Your task to perform on an android device: set the timer Image 0: 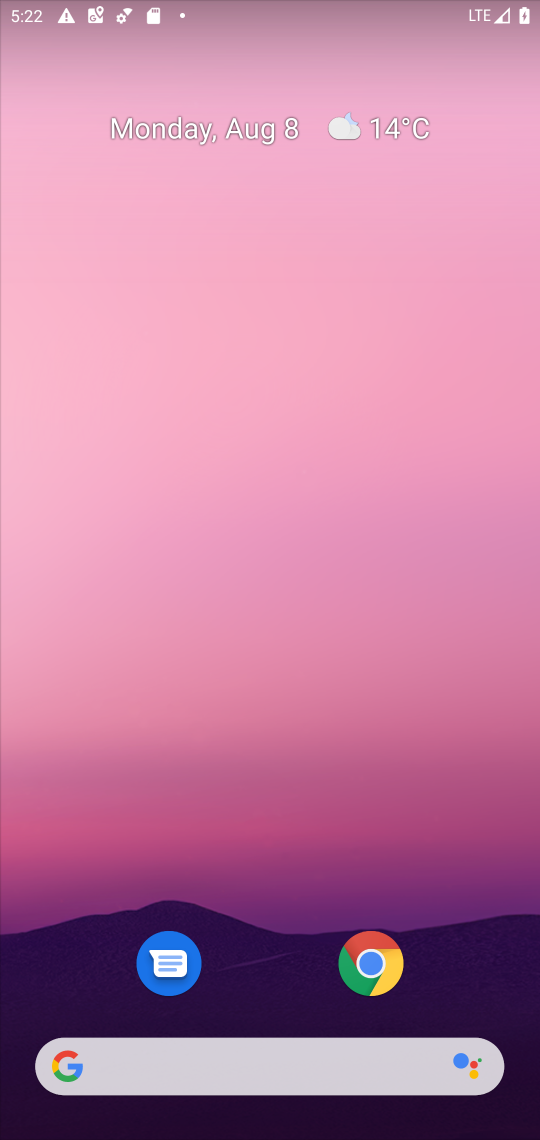
Step 0: drag from (270, 941) to (270, 353)
Your task to perform on an android device: set the timer Image 1: 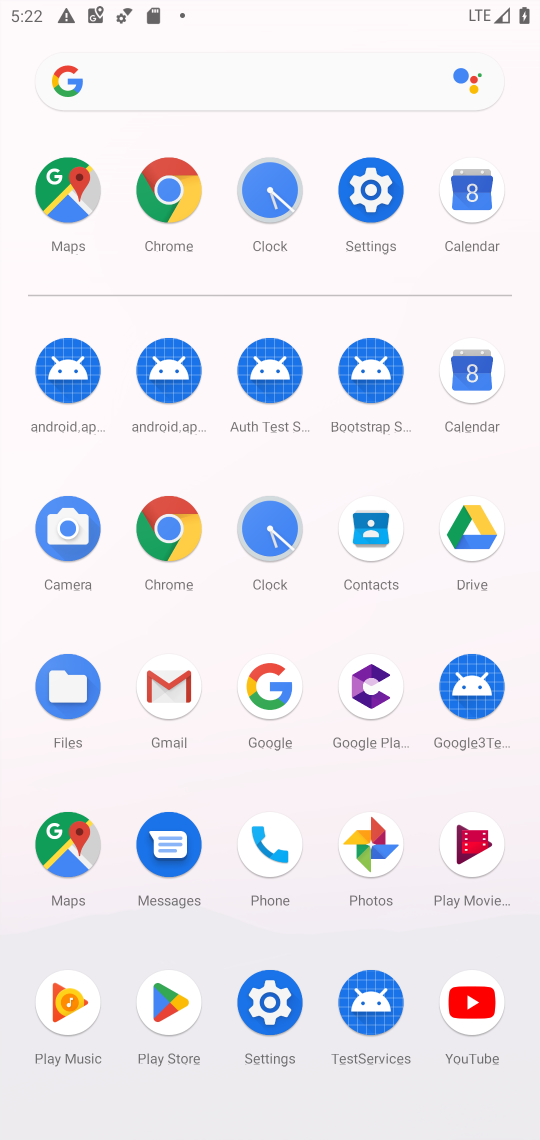
Step 1: click (264, 541)
Your task to perform on an android device: set the timer Image 2: 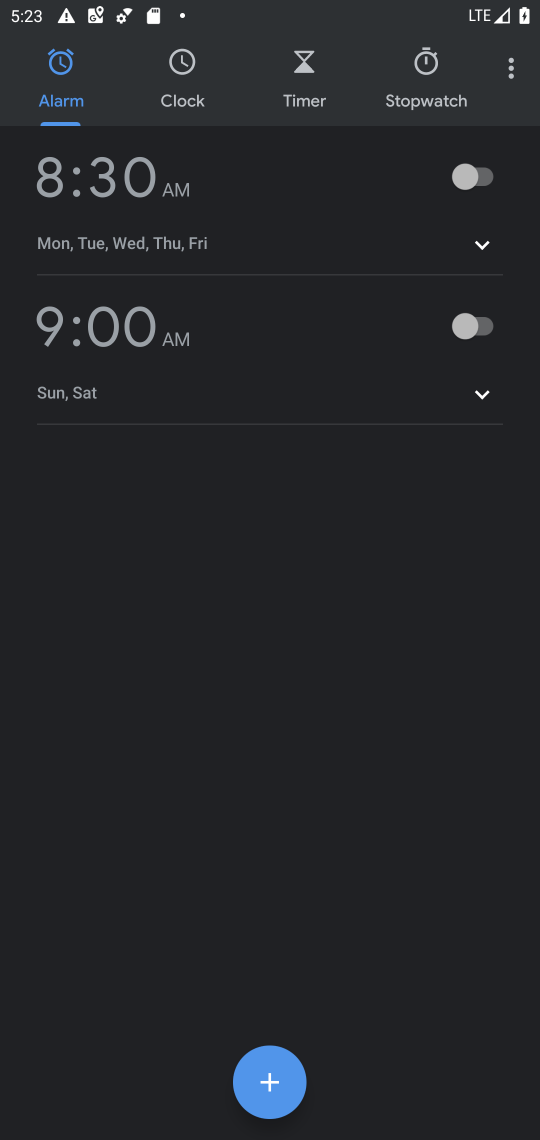
Step 2: click (298, 71)
Your task to perform on an android device: set the timer Image 3: 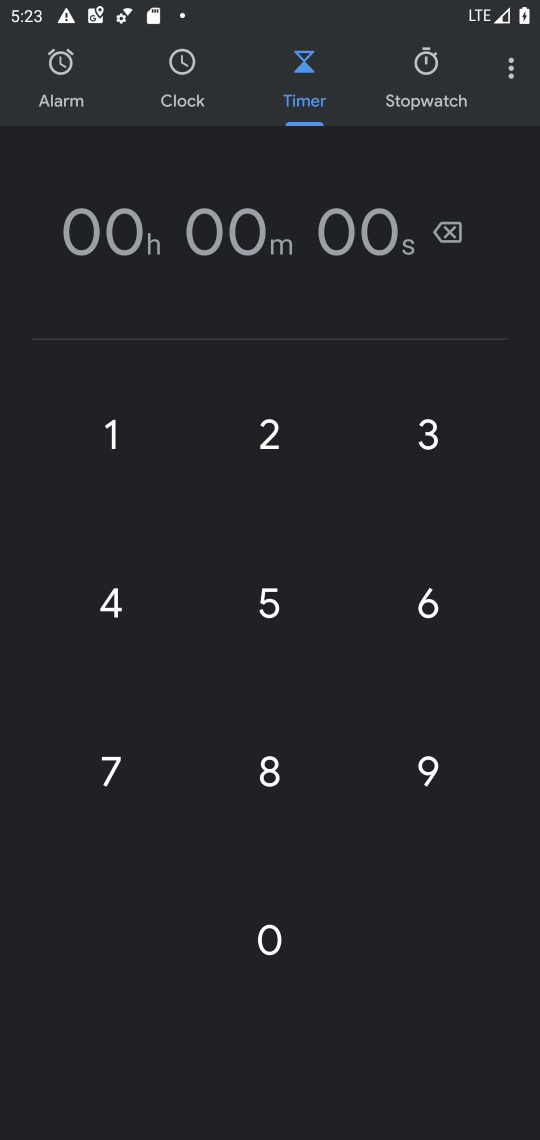
Step 3: click (281, 428)
Your task to perform on an android device: set the timer Image 4: 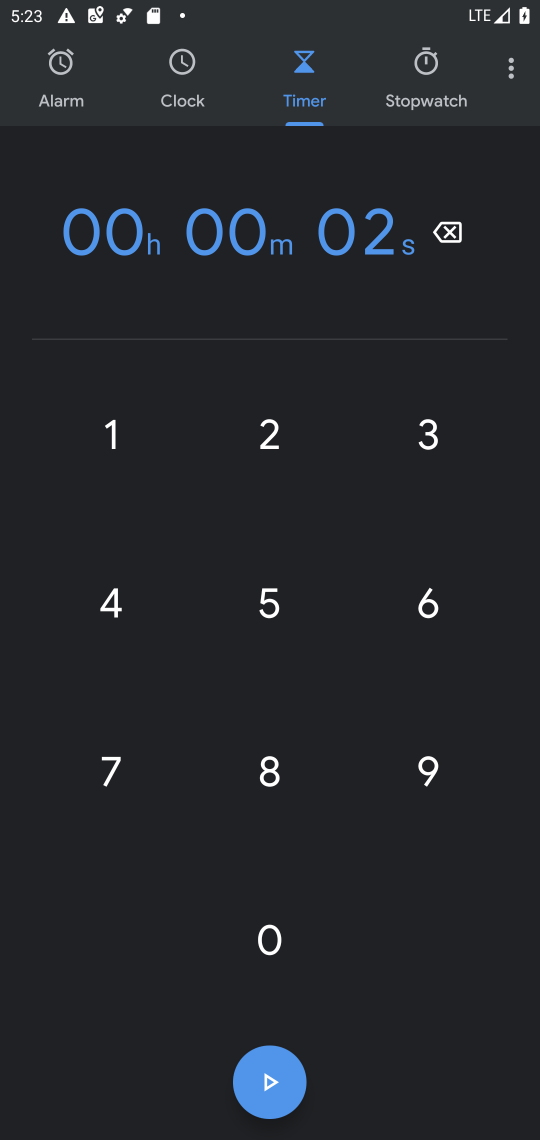
Step 4: click (281, 428)
Your task to perform on an android device: set the timer Image 5: 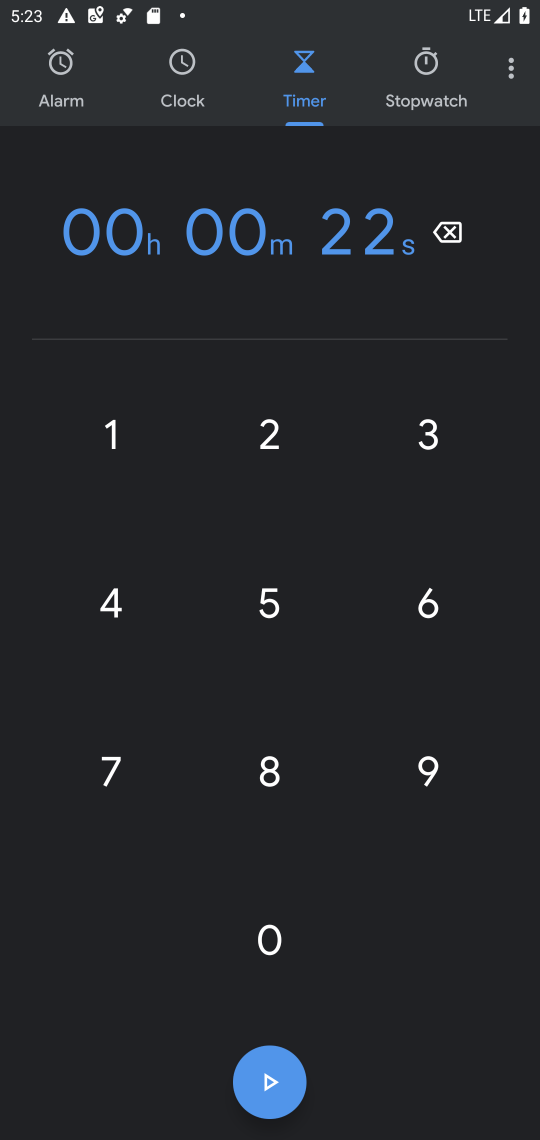
Step 5: click (281, 428)
Your task to perform on an android device: set the timer Image 6: 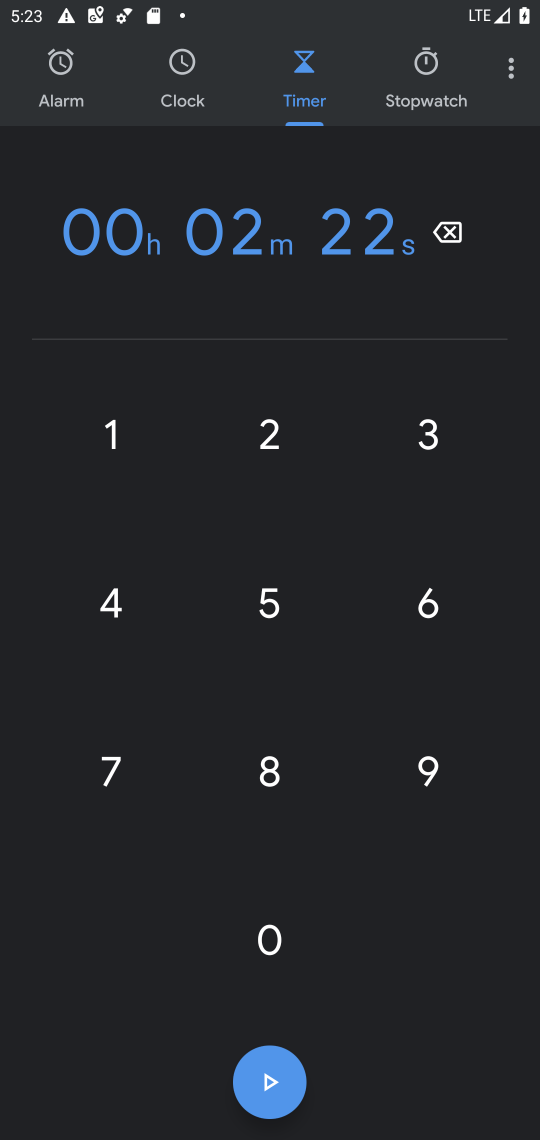
Step 6: click (281, 428)
Your task to perform on an android device: set the timer Image 7: 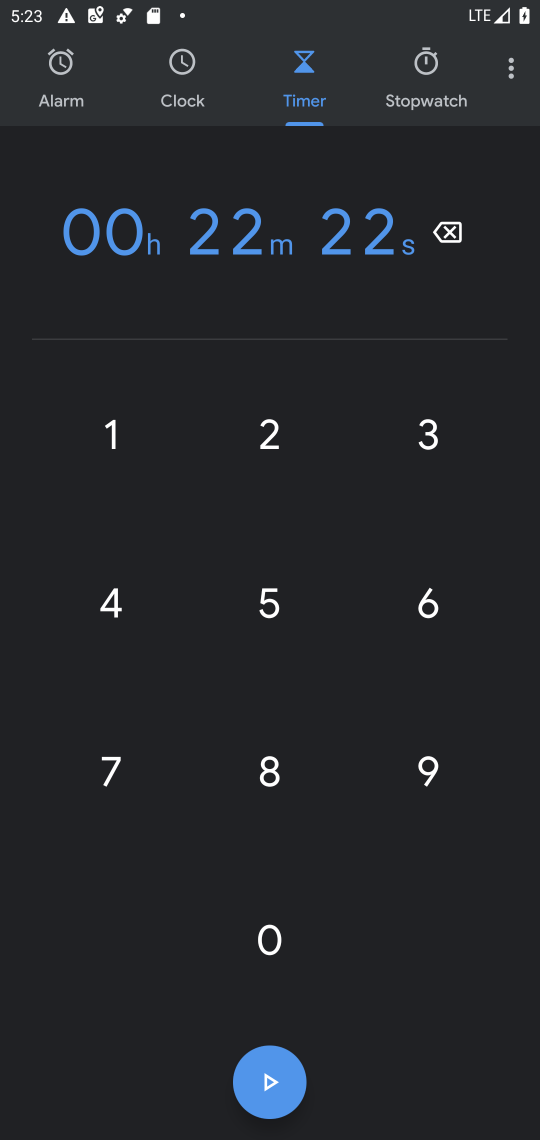
Step 7: click (281, 428)
Your task to perform on an android device: set the timer Image 8: 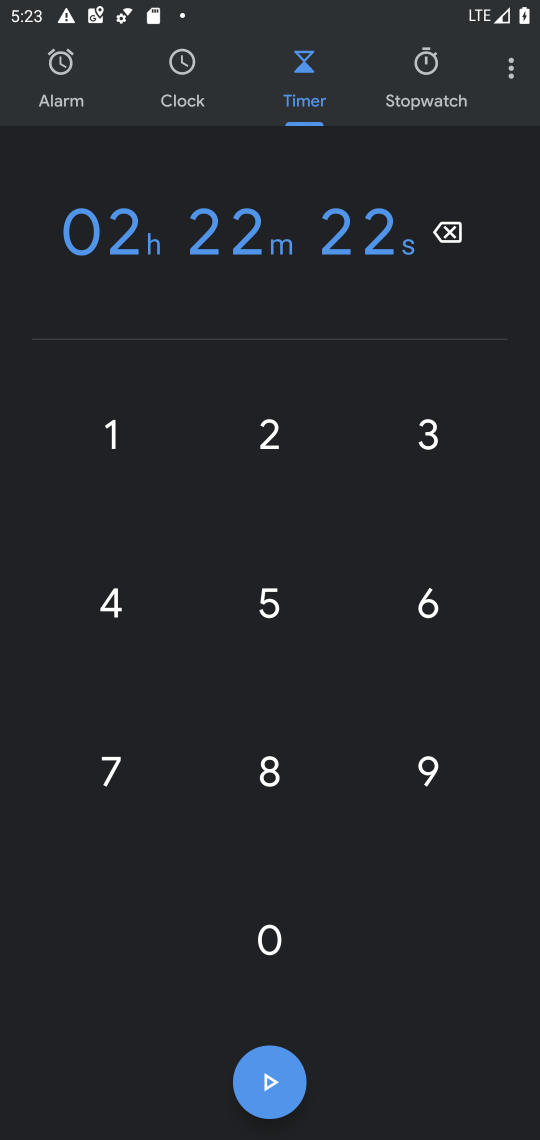
Step 8: click (281, 428)
Your task to perform on an android device: set the timer Image 9: 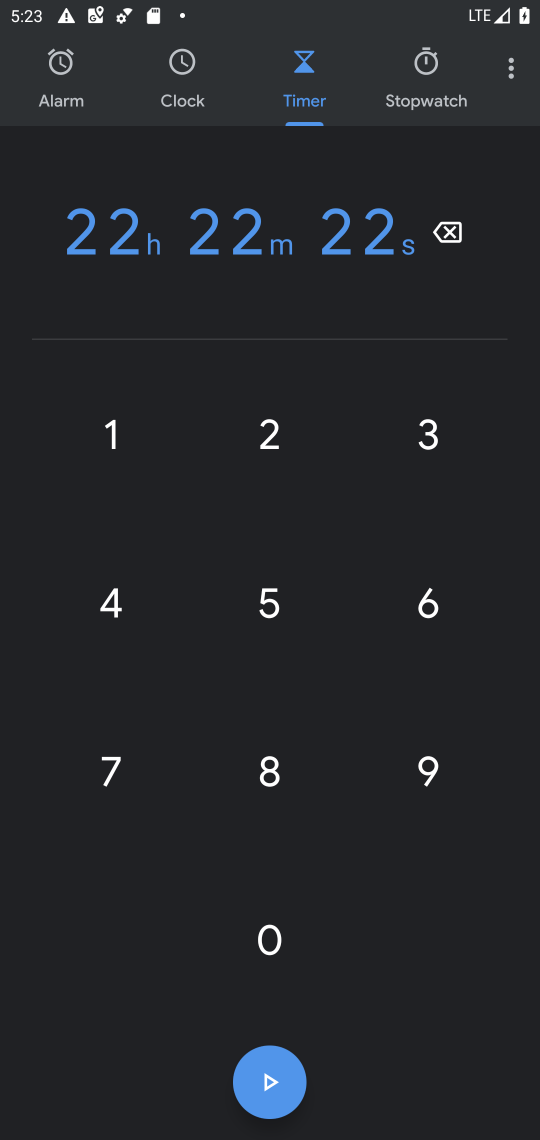
Step 9: click (294, 1059)
Your task to perform on an android device: set the timer Image 10: 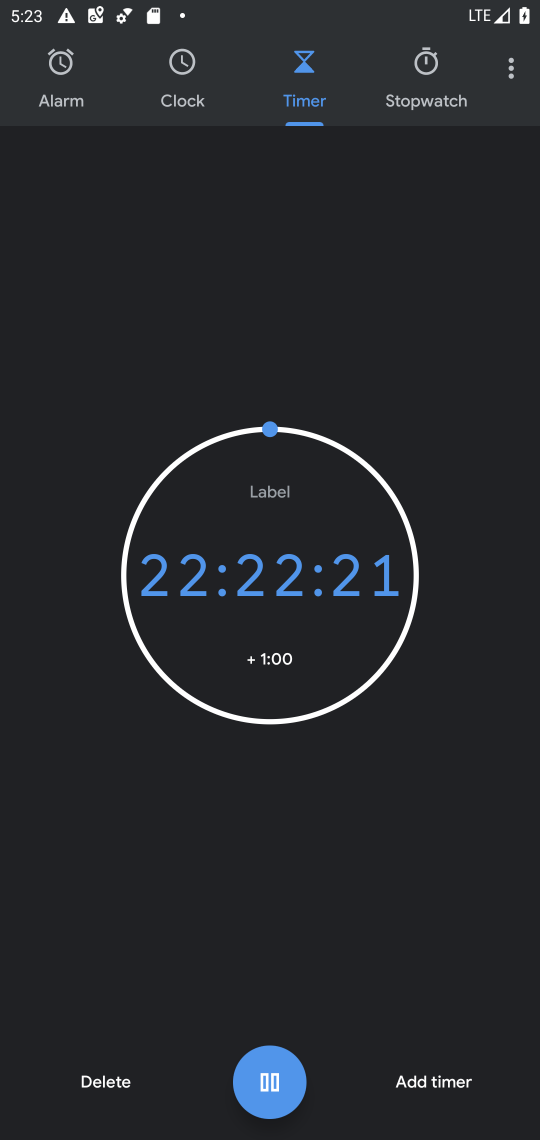
Step 10: task complete